Your task to perform on an android device: Show me popular videos on Youtube Image 0: 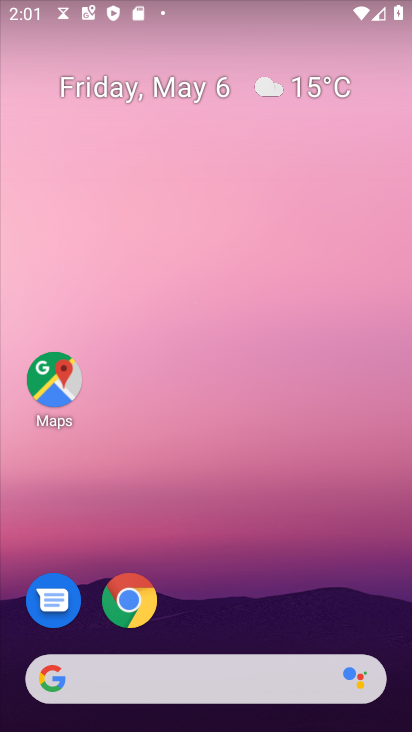
Step 0: drag from (266, 575) to (216, 58)
Your task to perform on an android device: Show me popular videos on Youtube Image 1: 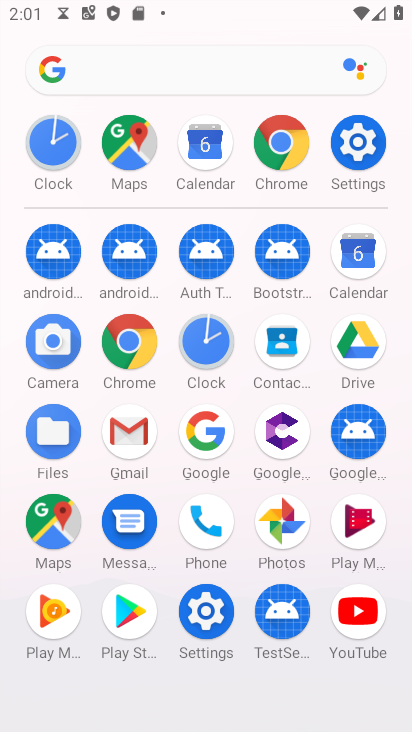
Step 1: drag from (16, 488) to (5, 280)
Your task to perform on an android device: Show me popular videos on Youtube Image 2: 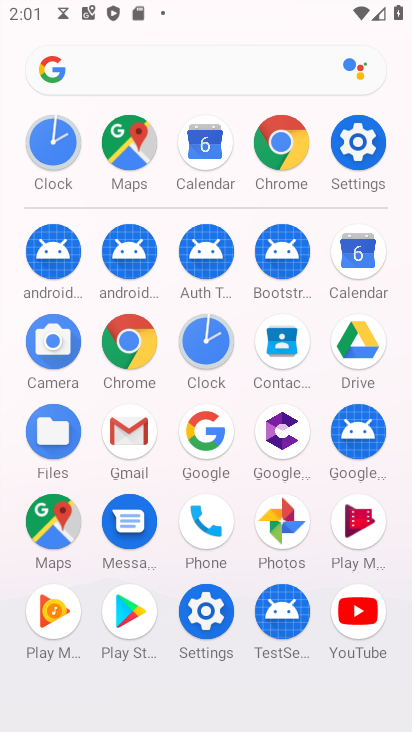
Step 2: click (363, 609)
Your task to perform on an android device: Show me popular videos on Youtube Image 3: 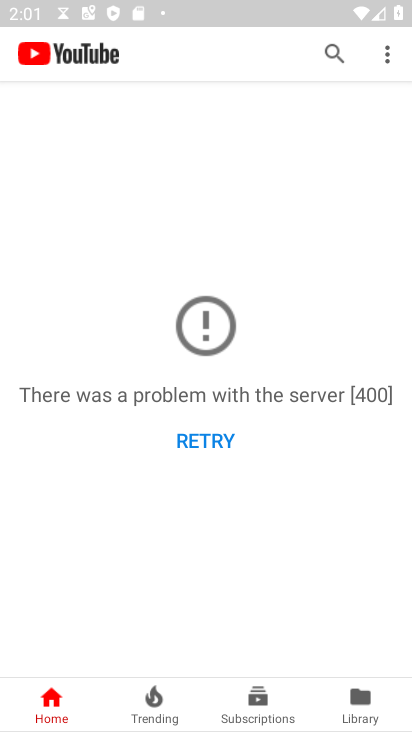
Step 3: click (202, 432)
Your task to perform on an android device: Show me popular videos on Youtube Image 4: 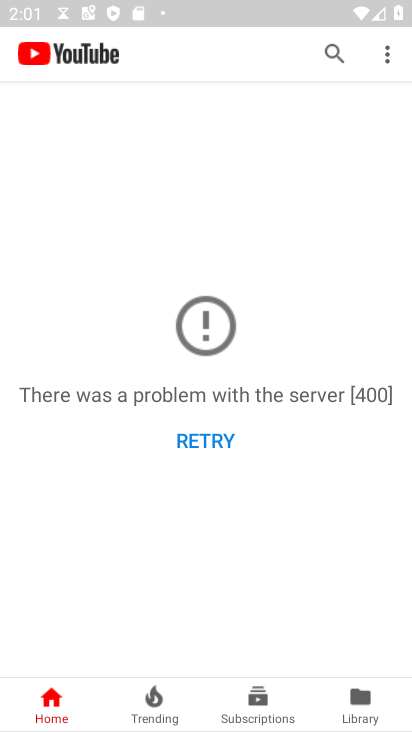
Step 4: task complete